Your task to perform on an android device: set an alarm Image 0: 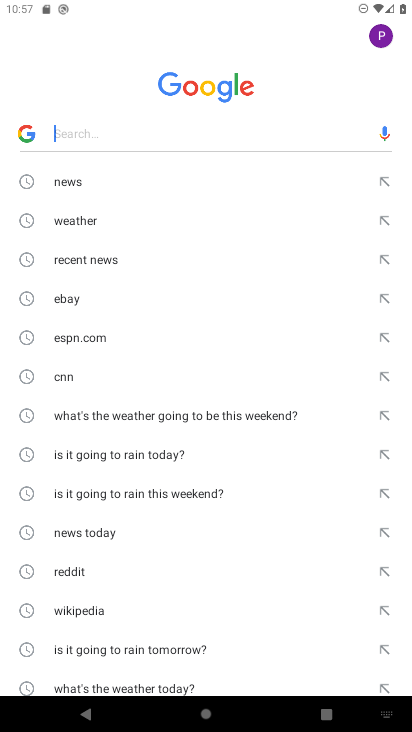
Step 0: press home button
Your task to perform on an android device: set an alarm Image 1: 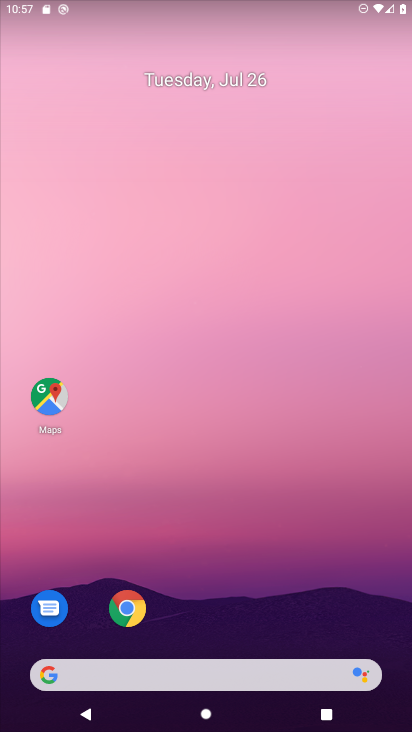
Step 1: drag from (343, 594) to (344, 9)
Your task to perform on an android device: set an alarm Image 2: 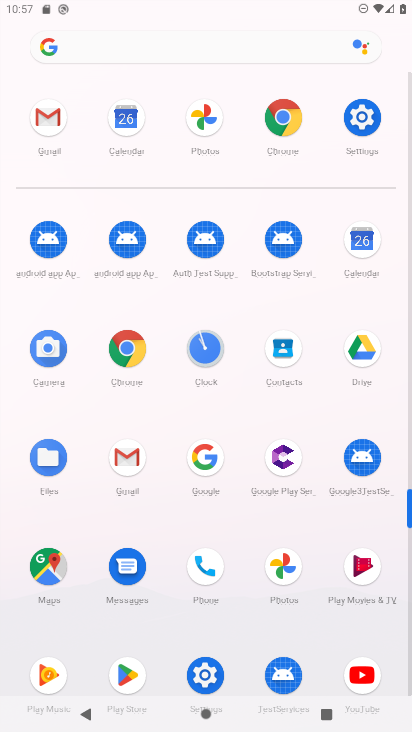
Step 2: click (198, 347)
Your task to perform on an android device: set an alarm Image 3: 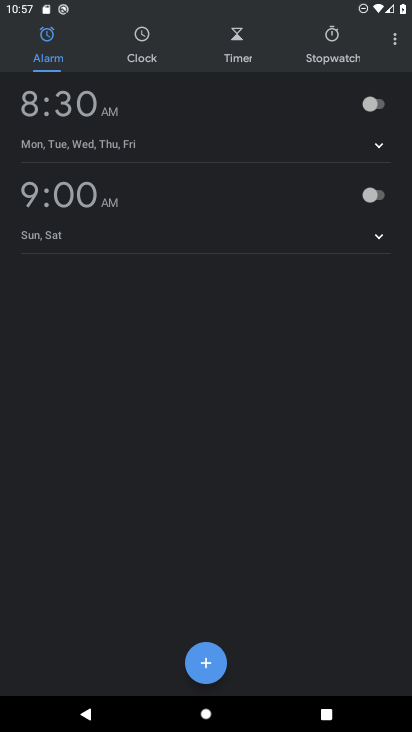
Step 3: click (221, 668)
Your task to perform on an android device: set an alarm Image 4: 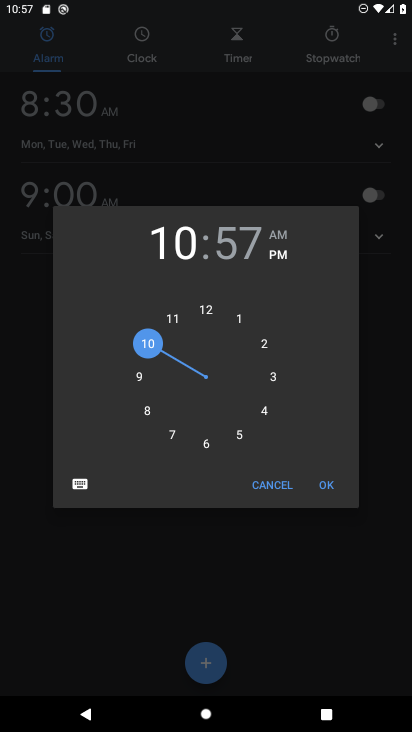
Step 4: click (328, 488)
Your task to perform on an android device: set an alarm Image 5: 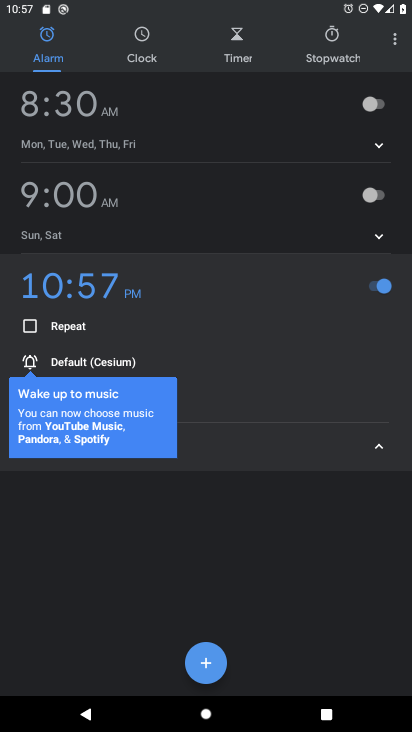
Step 5: task complete